Your task to perform on an android device: empty trash in google photos Image 0: 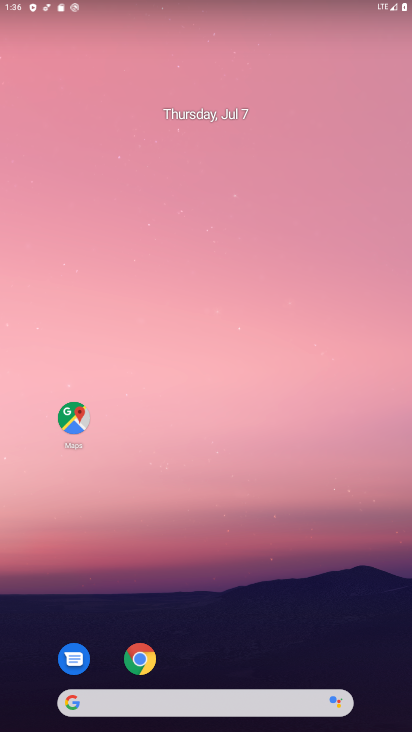
Step 0: drag from (193, 601) to (262, 185)
Your task to perform on an android device: empty trash in google photos Image 1: 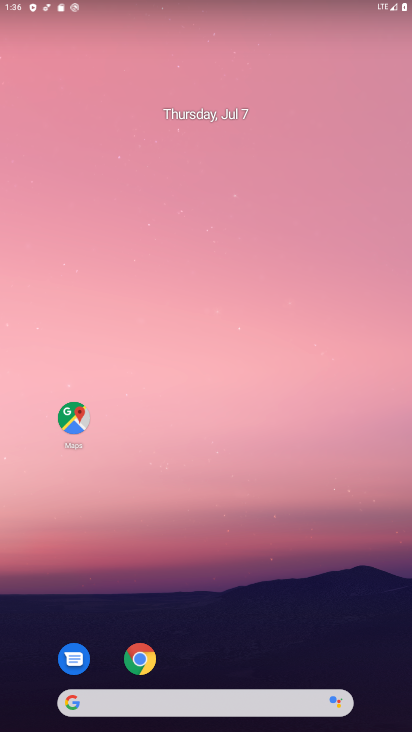
Step 1: drag from (238, 599) to (254, 59)
Your task to perform on an android device: empty trash in google photos Image 2: 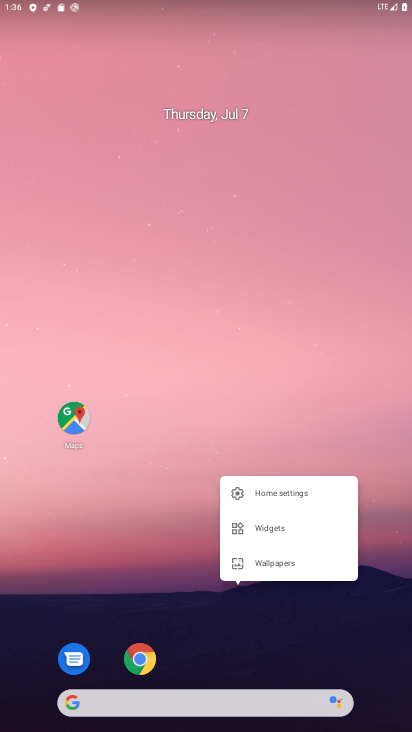
Step 2: drag from (149, 563) to (203, 41)
Your task to perform on an android device: empty trash in google photos Image 3: 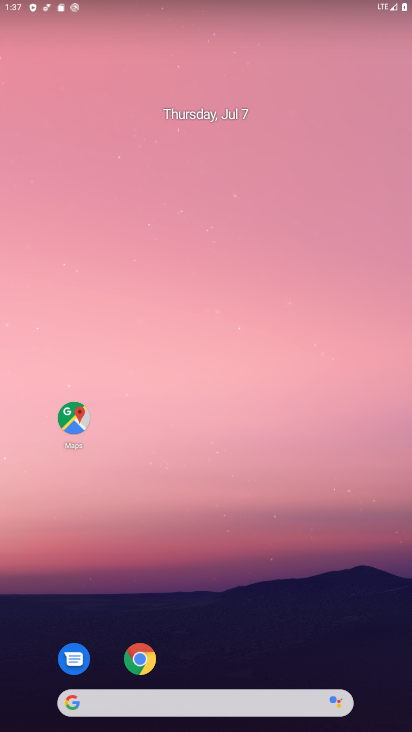
Step 3: click (249, 24)
Your task to perform on an android device: empty trash in google photos Image 4: 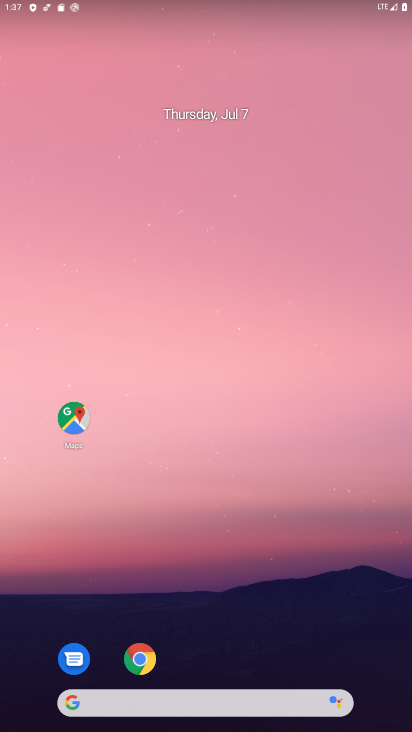
Step 4: drag from (227, 673) to (209, 49)
Your task to perform on an android device: empty trash in google photos Image 5: 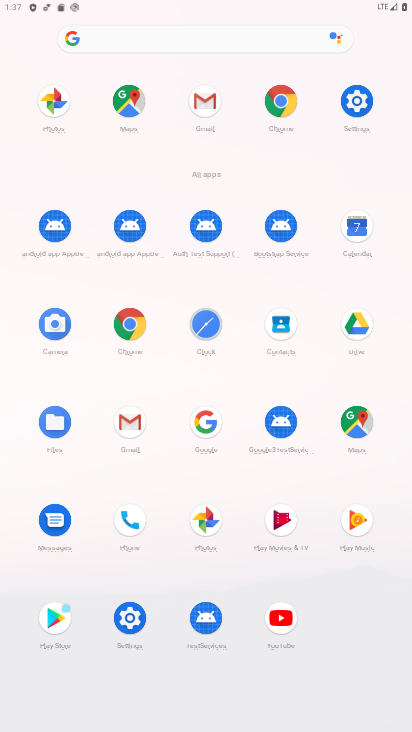
Step 5: click (52, 103)
Your task to perform on an android device: empty trash in google photos Image 6: 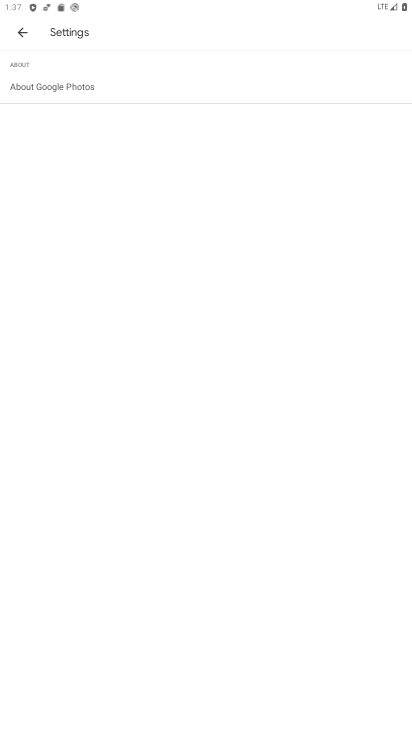
Step 6: press back button
Your task to perform on an android device: empty trash in google photos Image 7: 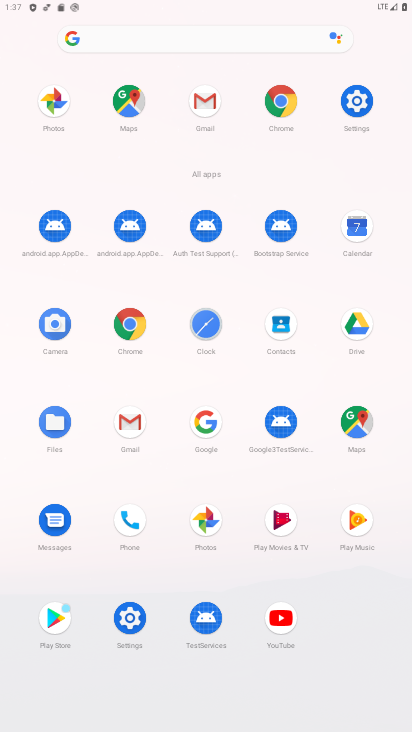
Step 7: click (50, 103)
Your task to perform on an android device: empty trash in google photos Image 8: 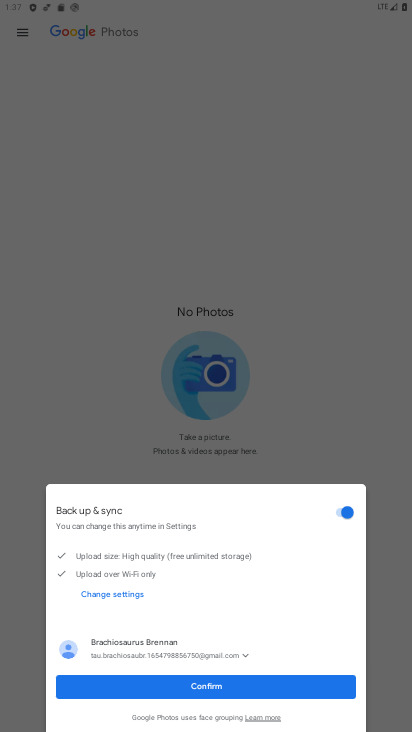
Step 8: click (170, 689)
Your task to perform on an android device: empty trash in google photos Image 9: 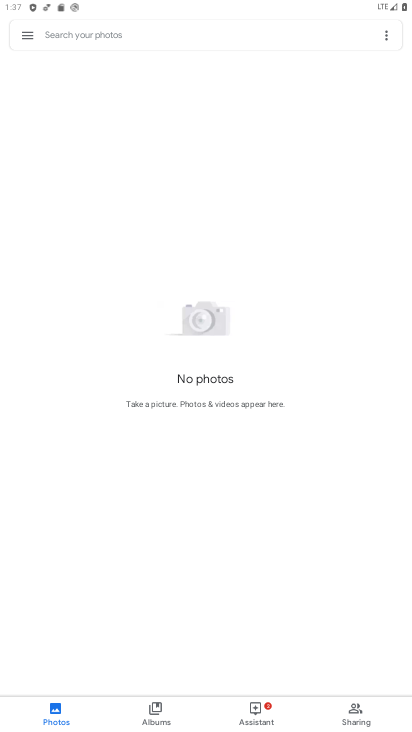
Step 9: click (27, 31)
Your task to perform on an android device: empty trash in google photos Image 10: 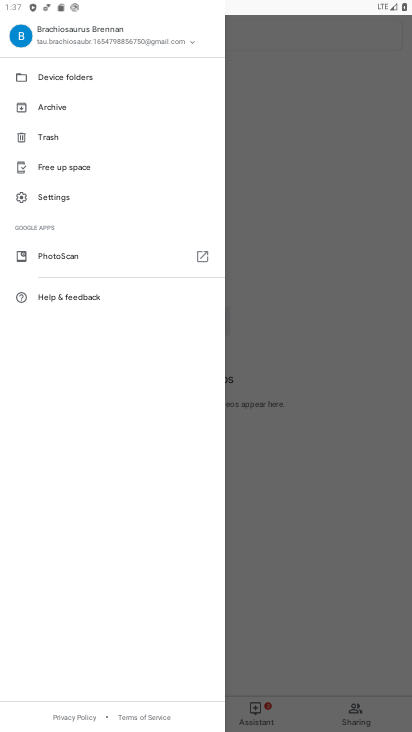
Step 10: click (57, 142)
Your task to perform on an android device: empty trash in google photos Image 11: 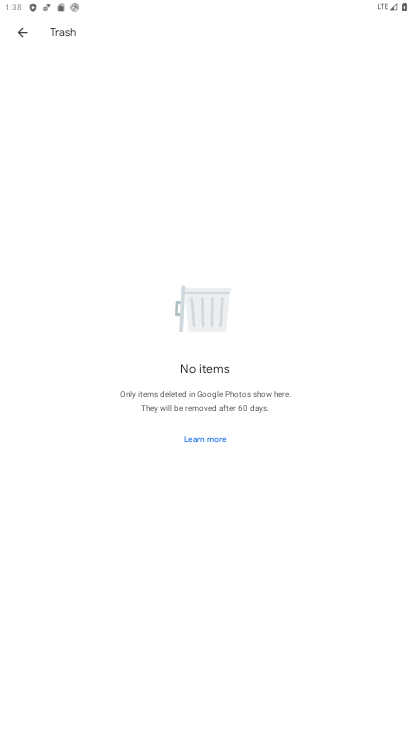
Step 11: task complete